Your task to perform on an android device: find which apps use the phone's location Image 0: 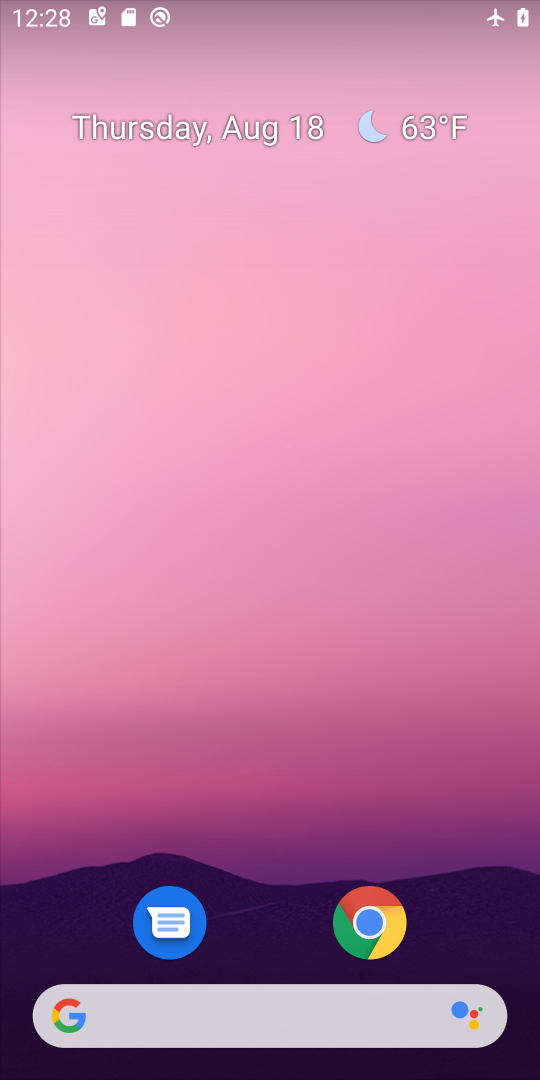
Step 0: drag from (260, 935) to (162, 194)
Your task to perform on an android device: find which apps use the phone's location Image 1: 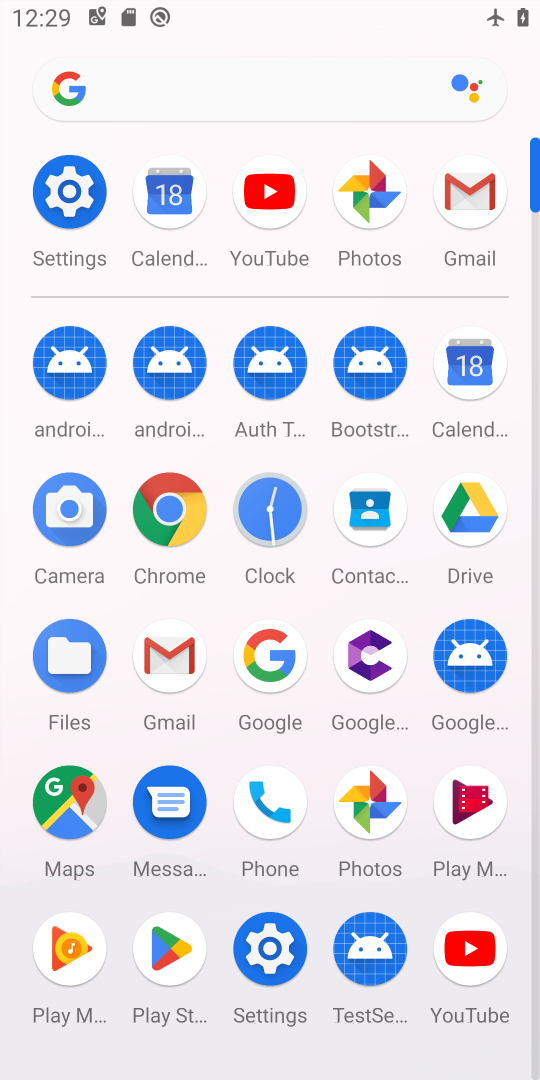
Step 1: click (72, 188)
Your task to perform on an android device: find which apps use the phone's location Image 2: 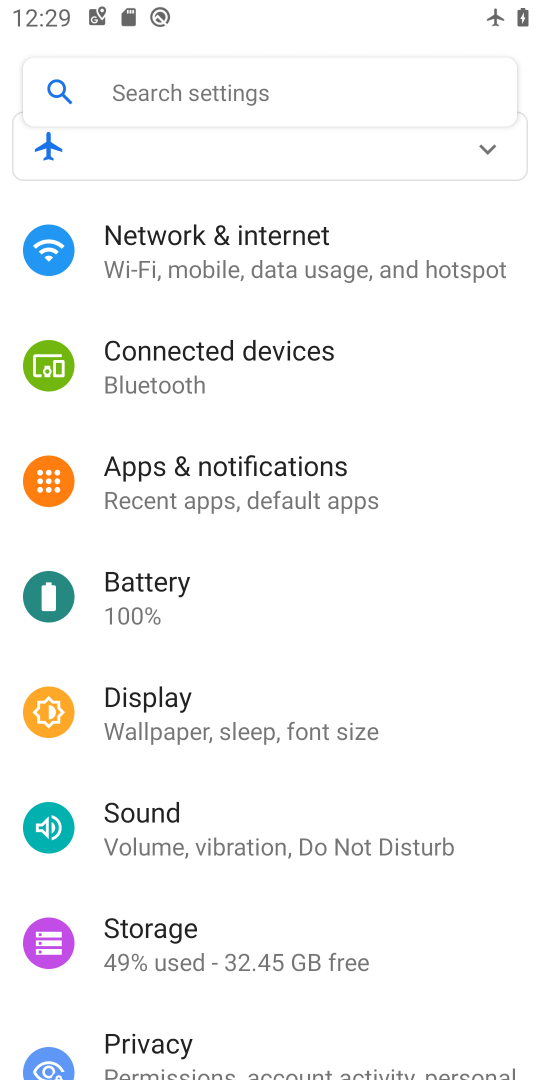
Step 2: drag from (327, 903) to (307, 495)
Your task to perform on an android device: find which apps use the phone's location Image 3: 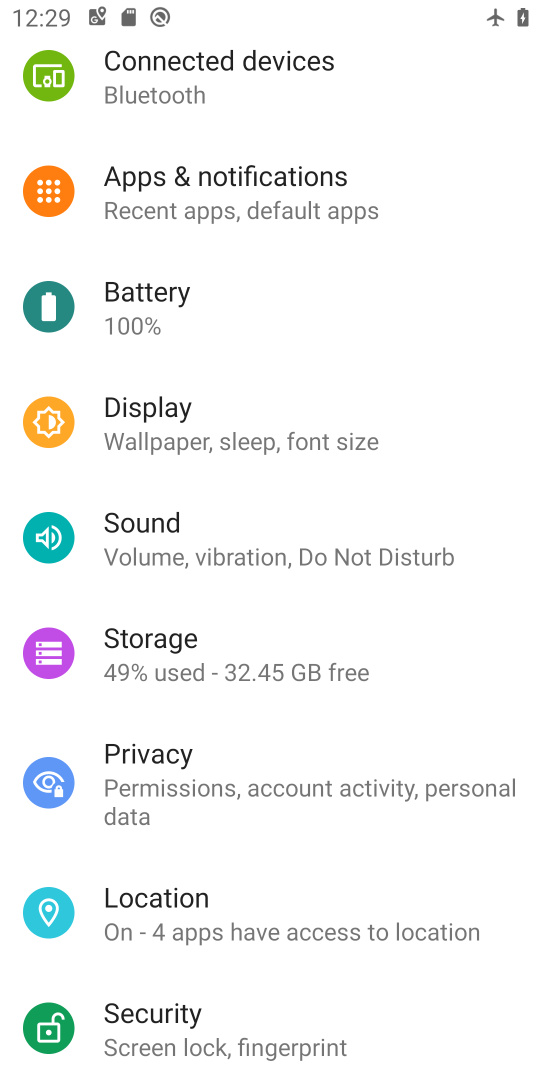
Step 3: click (159, 906)
Your task to perform on an android device: find which apps use the phone's location Image 4: 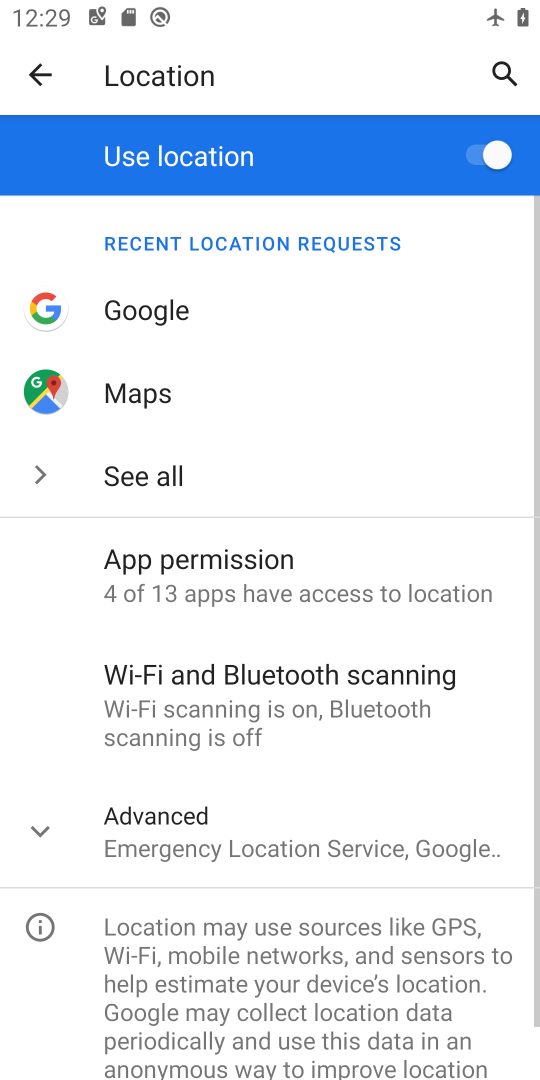
Step 4: click (133, 478)
Your task to perform on an android device: find which apps use the phone's location Image 5: 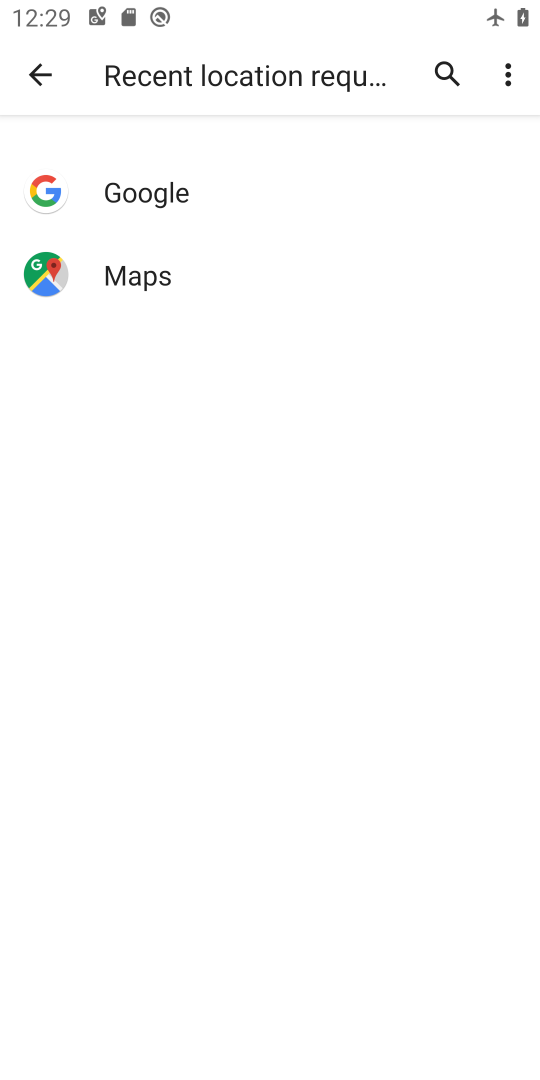
Step 5: task complete